Your task to perform on an android device: toggle notification dots Image 0: 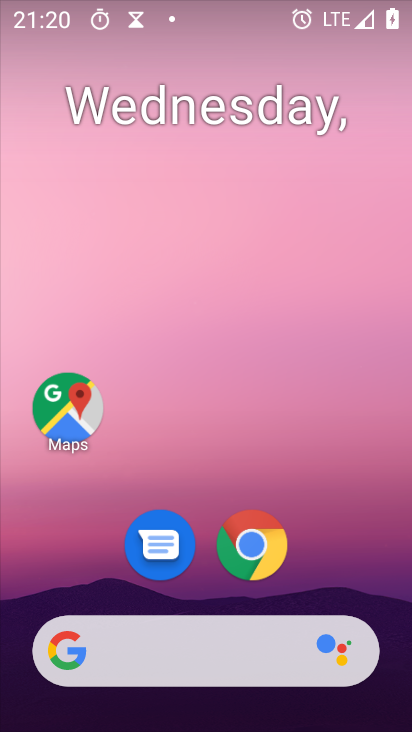
Step 0: press home button
Your task to perform on an android device: toggle notification dots Image 1: 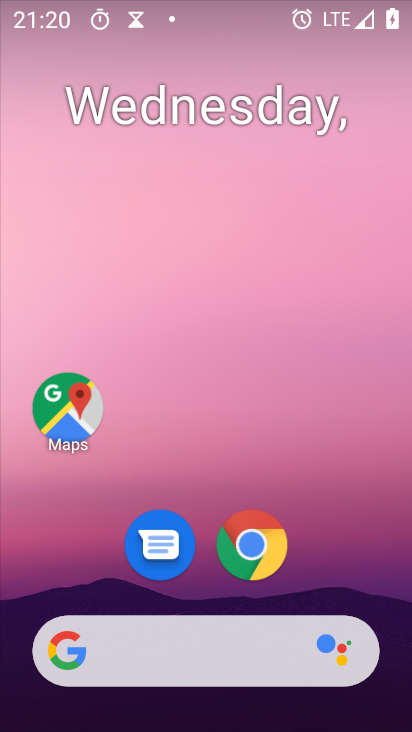
Step 1: drag from (171, 669) to (313, 142)
Your task to perform on an android device: toggle notification dots Image 2: 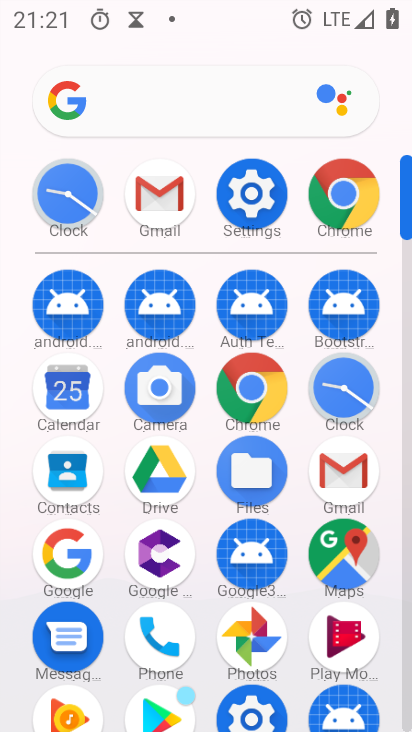
Step 2: click (256, 199)
Your task to perform on an android device: toggle notification dots Image 3: 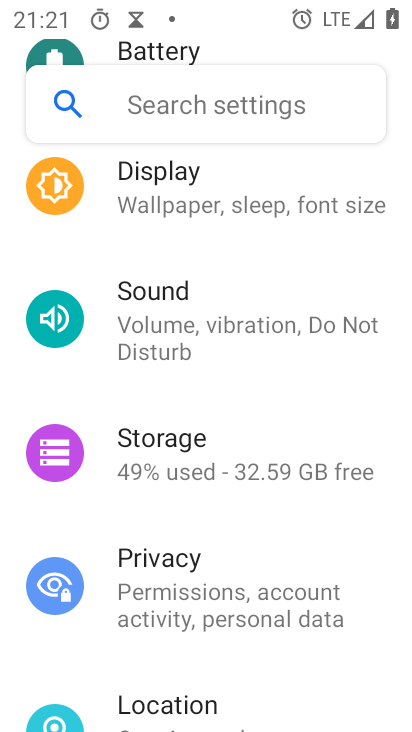
Step 3: drag from (277, 253) to (243, 621)
Your task to perform on an android device: toggle notification dots Image 4: 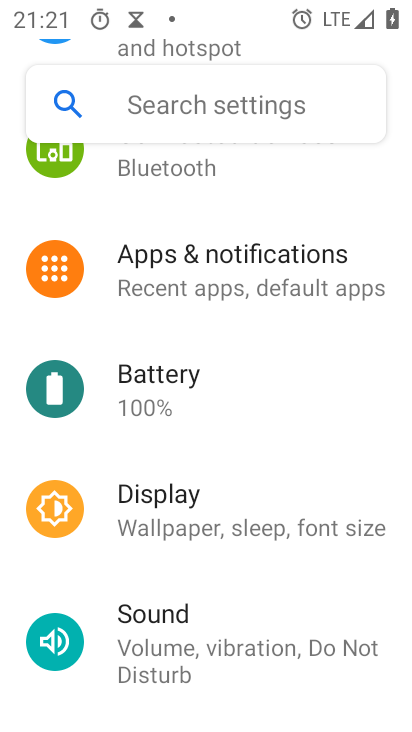
Step 4: click (229, 278)
Your task to perform on an android device: toggle notification dots Image 5: 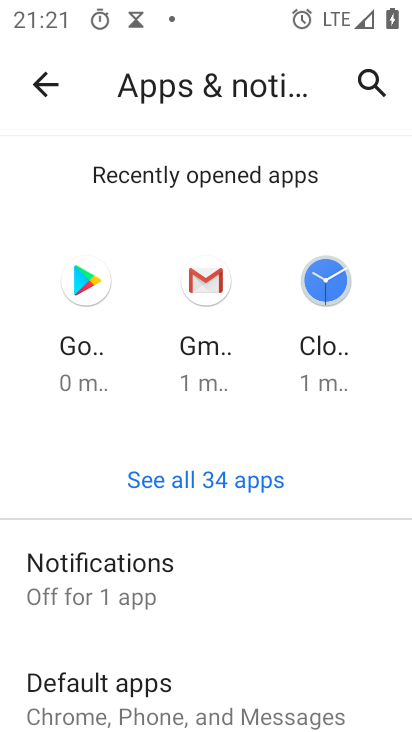
Step 5: click (119, 569)
Your task to perform on an android device: toggle notification dots Image 6: 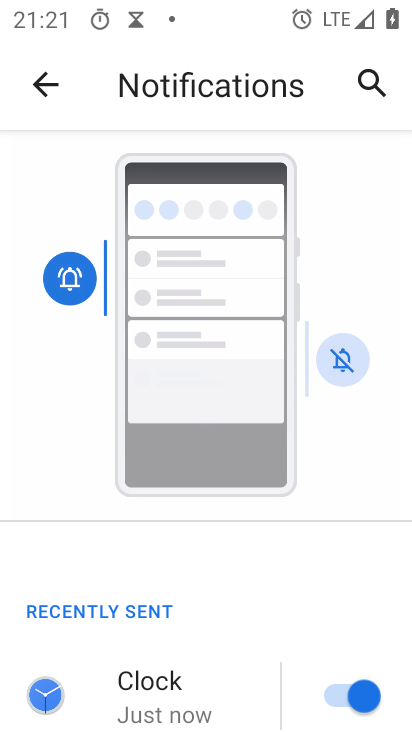
Step 6: drag from (193, 646) to (323, 266)
Your task to perform on an android device: toggle notification dots Image 7: 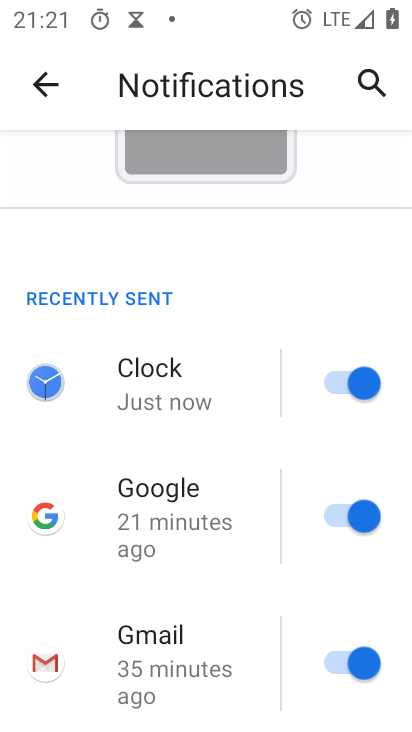
Step 7: drag from (199, 635) to (360, 197)
Your task to perform on an android device: toggle notification dots Image 8: 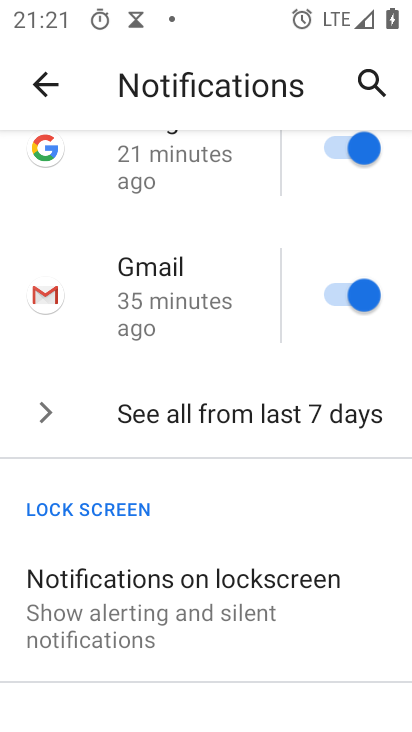
Step 8: drag from (203, 637) to (407, 226)
Your task to perform on an android device: toggle notification dots Image 9: 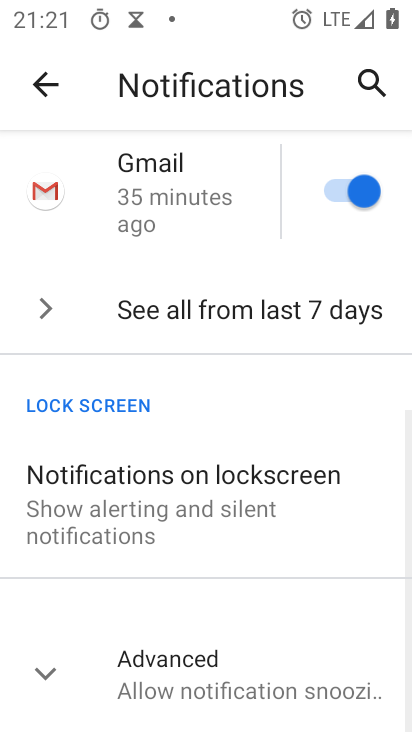
Step 9: click (180, 665)
Your task to perform on an android device: toggle notification dots Image 10: 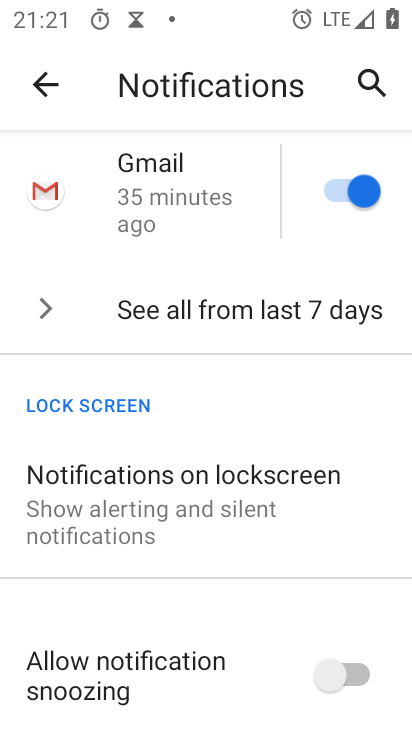
Step 10: drag from (169, 627) to (312, 204)
Your task to perform on an android device: toggle notification dots Image 11: 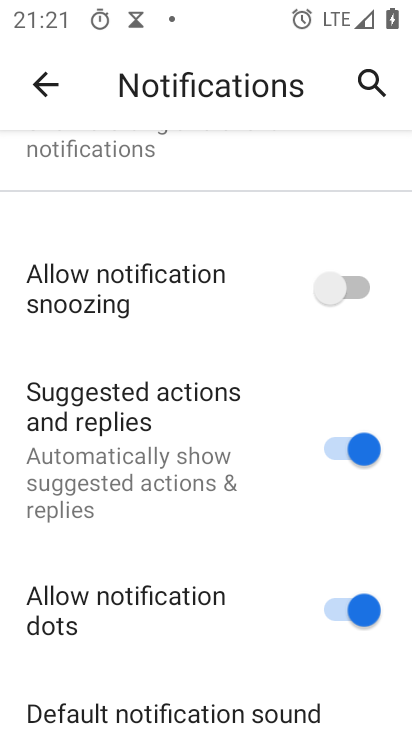
Step 11: click (346, 609)
Your task to perform on an android device: toggle notification dots Image 12: 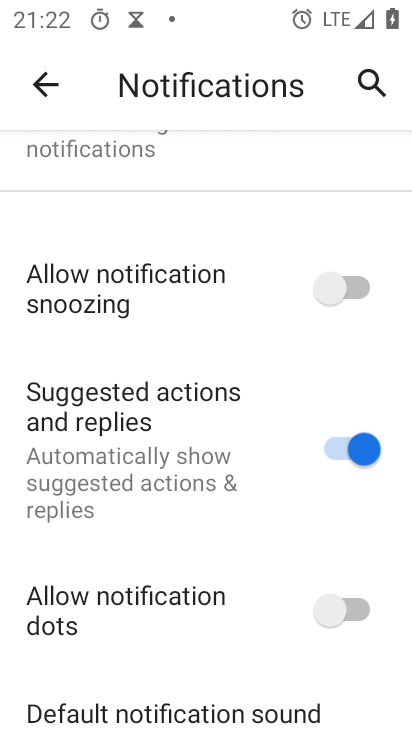
Step 12: task complete